Your task to perform on an android device: Show me productivity apps on the Play Store Image 0: 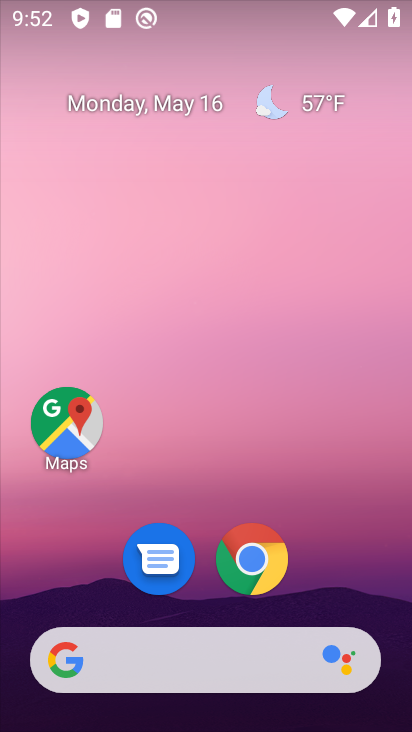
Step 0: drag from (346, 564) to (349, 54)
Your task to perform on an android device: Show me productivity apps on the Play Store Image 1: 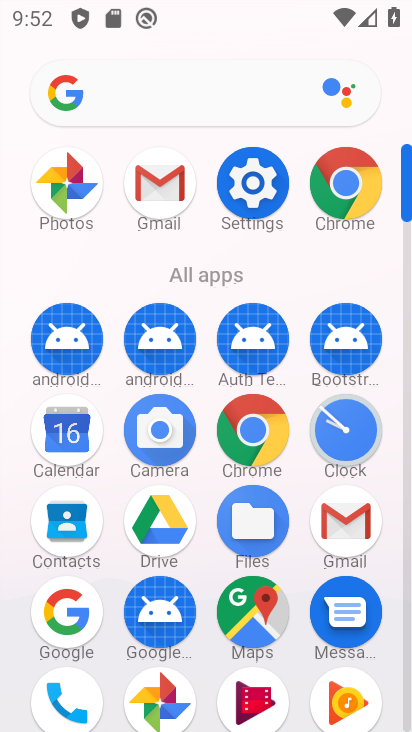
Step 1: drag from (305, 630) to (326, 149)
Your task to perform on an android device: Show me productivity apps on the Play Store Image 2: 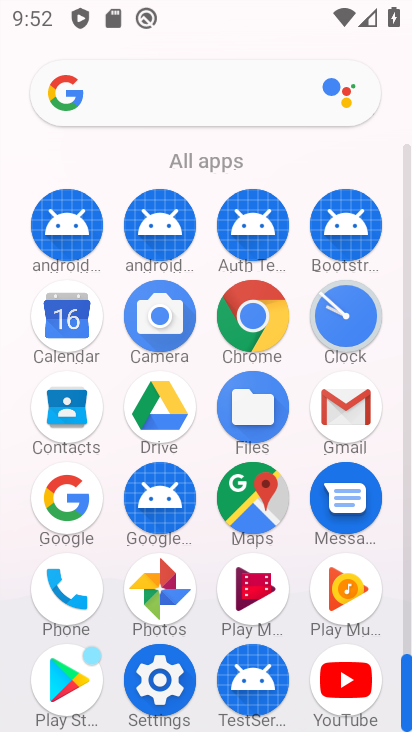
Step 2: click (72, 664)
Your task to perform on an android device: Show me productivity apps on the Play Store Image 3: 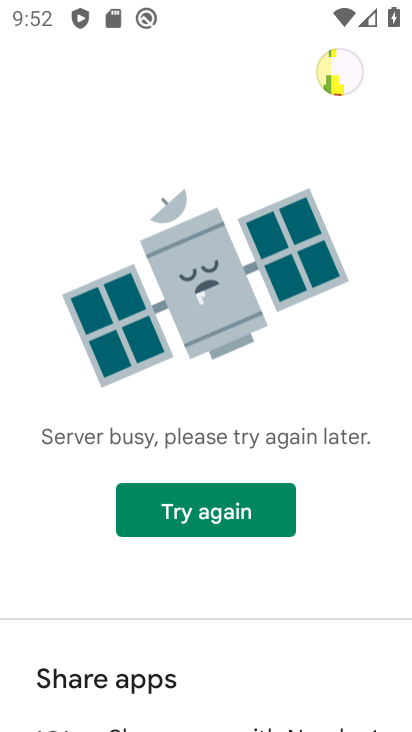
Step 3: task complete